Your task to perform on an android device: Open network settings Image 0: 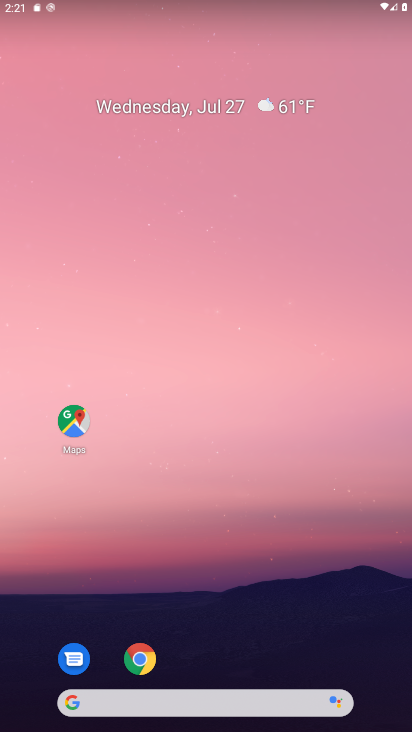
Step 0: drag from (211, 704) to (187, 87)
Your task to perform on an android device: Open network settings Image 1: 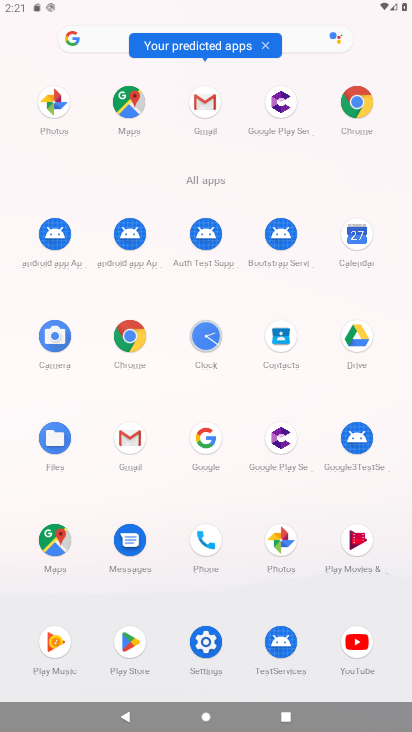
Step 1: click (204, 645)
Your task to perform on an android device: Open network settings Image 2: 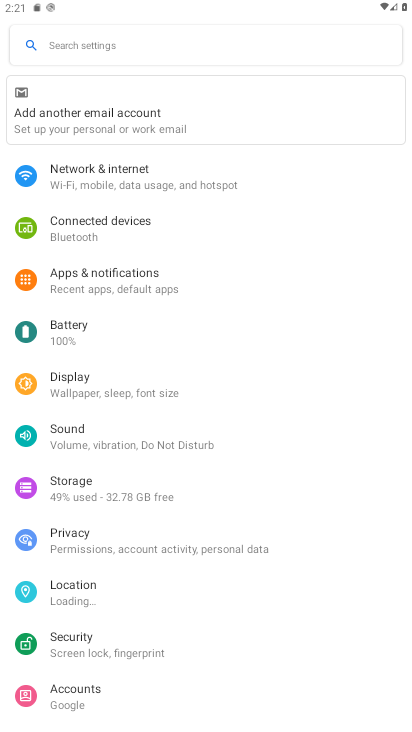
Step 2: click (98, 179)
Your task to perform on an android device: Open network settings Image 3: 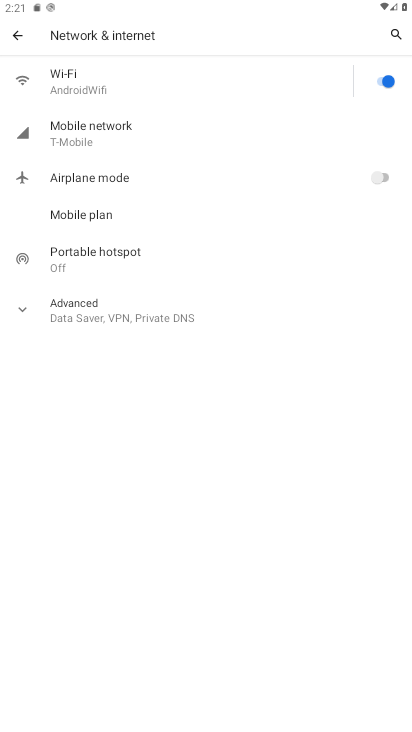
Step 3: task complete